Your task to perform on an android device: turn on the 24-hour format for clock Image 0: 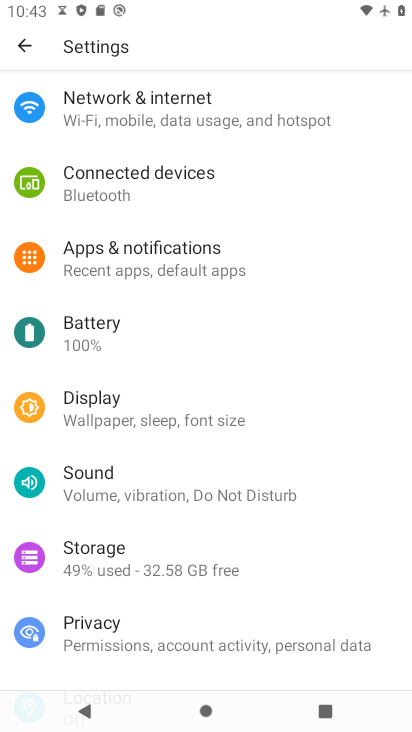
Step 0: press back button
Your task to perform on an android device: turn on the 24-hour format for clock Image 1: 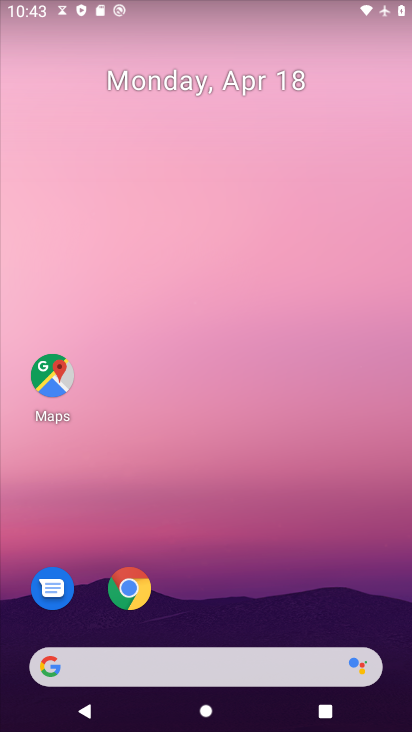
Step 1: drag from (238, 476) to (100, 21)
Your task to perform on an android device: turn on the 24-hour format for clock Image 2: 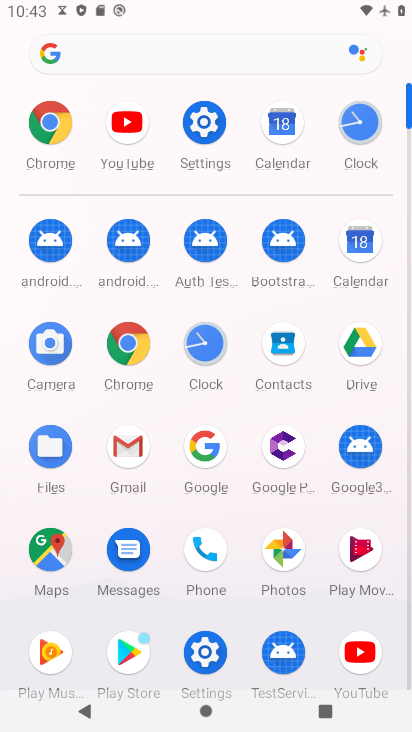
Step 2: drag from (18, 488) to (9, 141)
Your task to perform on an android device: turn on the 24-hour format for clock Image 3: 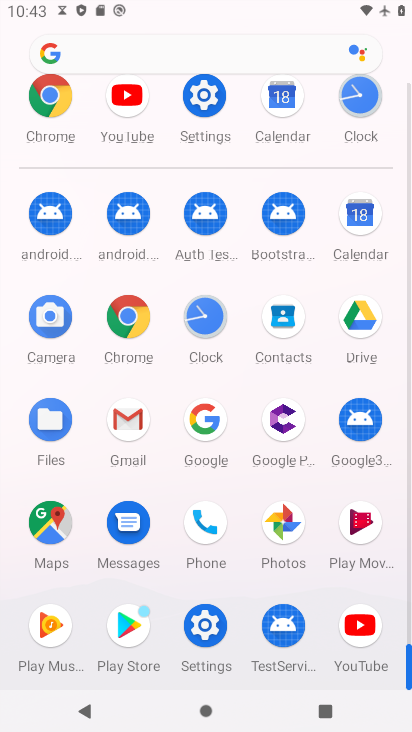
Step 3: drag from (11, 250) to (0, 444)
Your task to perform on an android device: turn on the 24-hour format for clock Image 4: 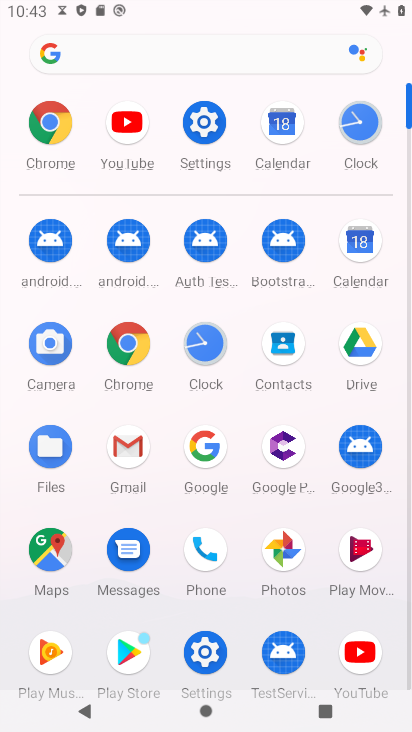
Step 4: click (205, 344)
Your task to perform on an android device: turn on the 24-hour format for clock Image 5: 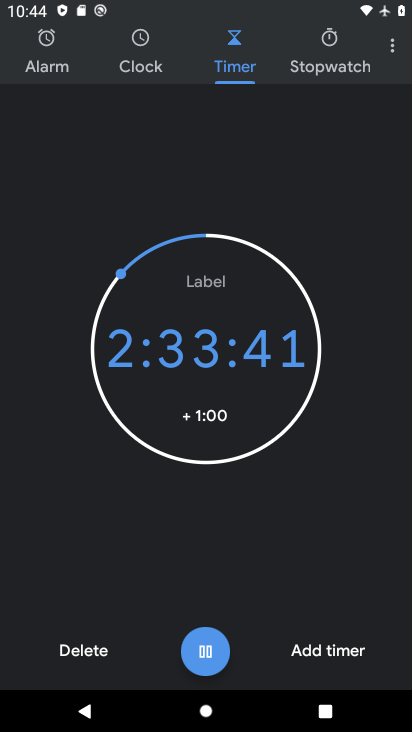
Step 5: click (389, 40)
Your task to perform on an android device: turn on the 24-hour format for clock Image 6: 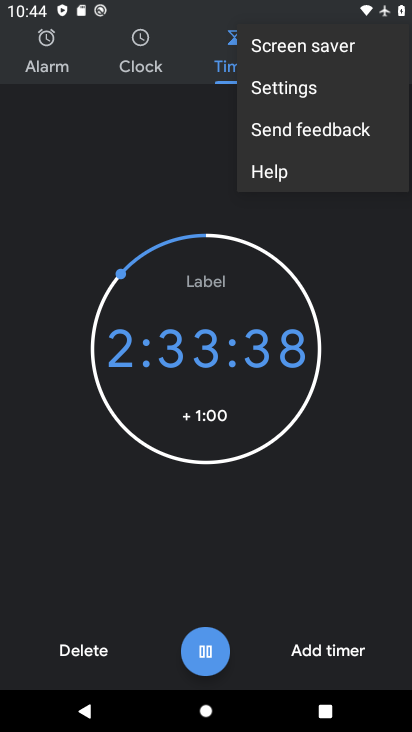
Step 6: click (318, 85)
Your task to perform on an android device: turn on the 24-hour format for clock Image 7: 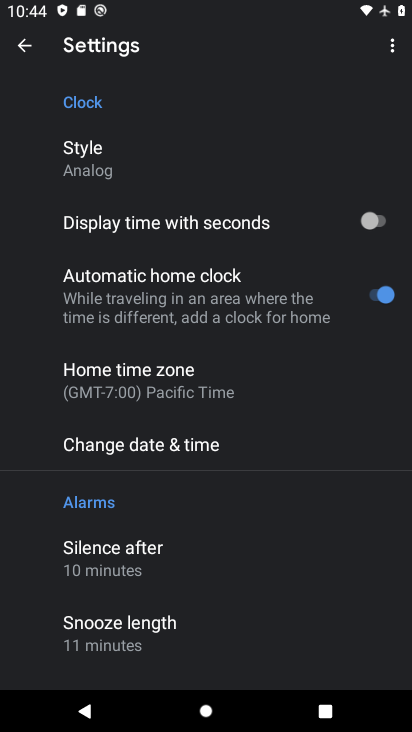
Step 7: click (189, 441)
Your task to perform on an android device: turn on the 24-hour format for clock Image 8: 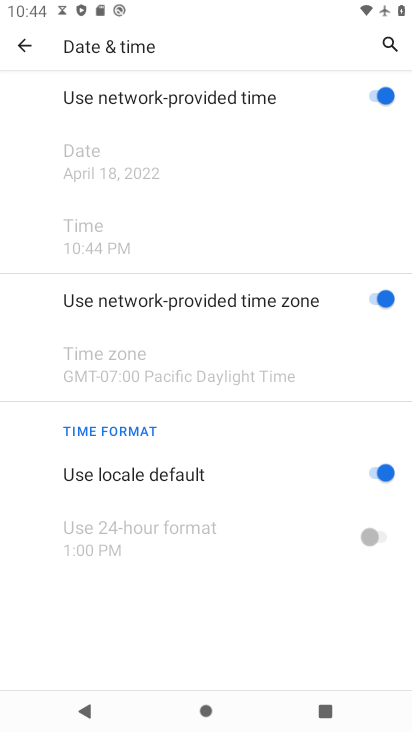
Step 8: click (380, 477)
Your task to perform on an android device: turn on the 24-hour format for clock Image 9: 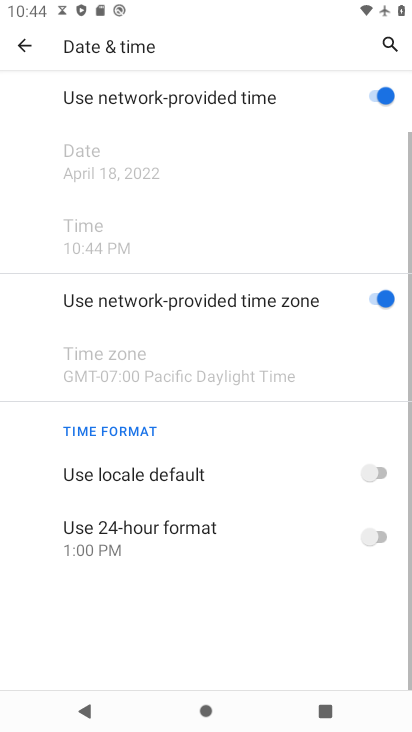
Step 9: click (373, 536)
Your task to perform on an android device: turn on the 24-hour format for clock Image 10: 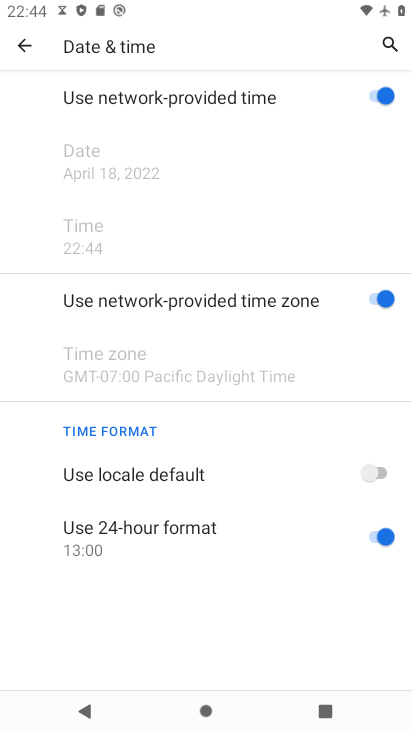
Step 10: task complete